Your task to perform on an android device: Search for vegetarian restaurants on Maps Image 0: 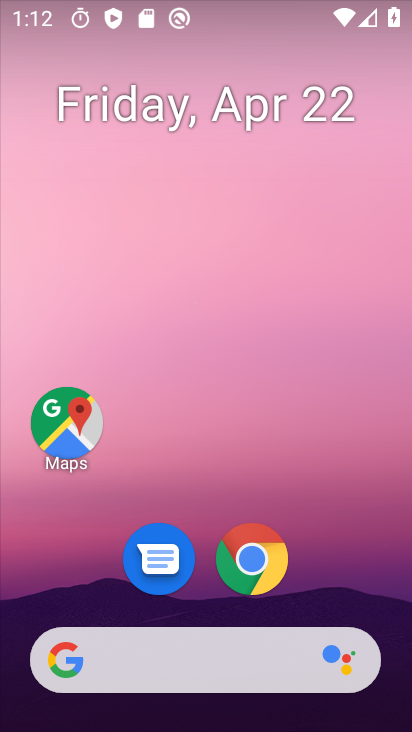
Step 0: drag from (363, 587) to (355, 330)
Your task to perform on an android device: Search for vegetarian restaurants on Maps Image 1: 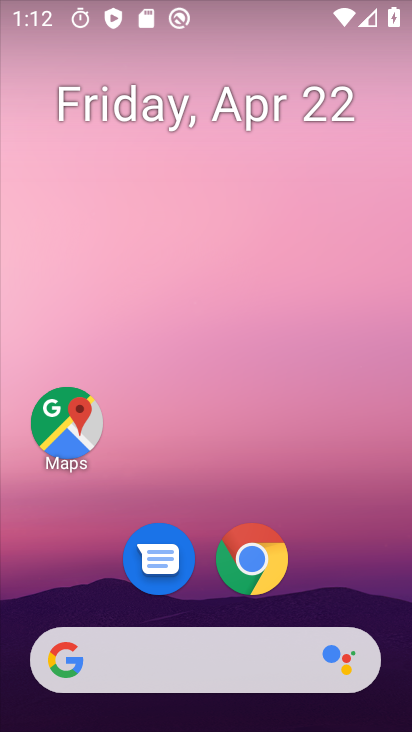
Step 1: drag from (350, 576) to (359, 114)
Your task to perform on an android device: Search for vegetarian restaurants on Maps Image 2: 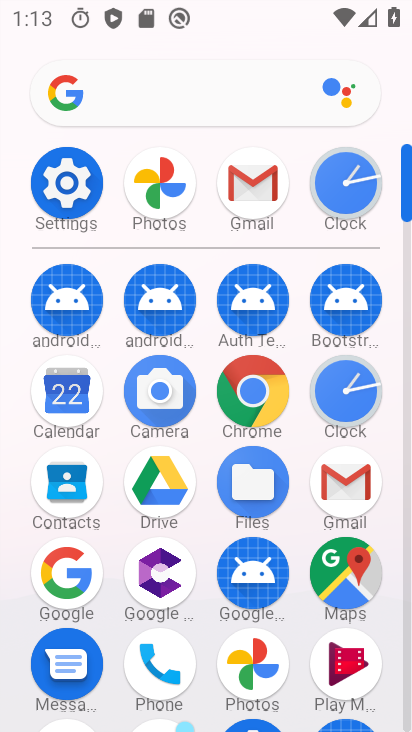
Step 2: click (353, 582)
Your task to perform on an android device: Search for vegetarian restaurants on Maps Image 3: 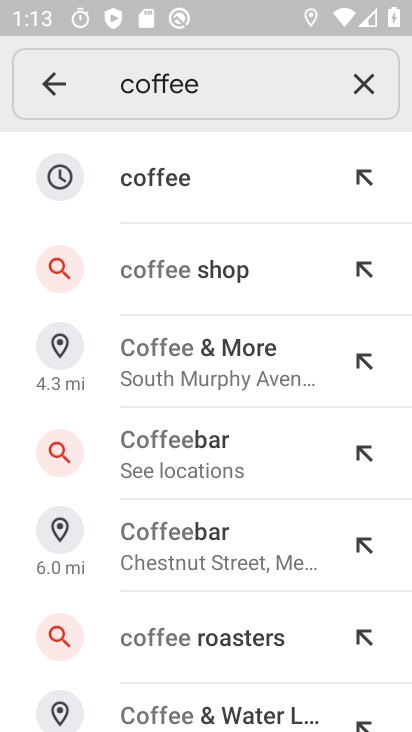
Step 3: click (362, 77)
Your task to perform on an android device: Search for vegetarian restaurants on Maps Image 4: 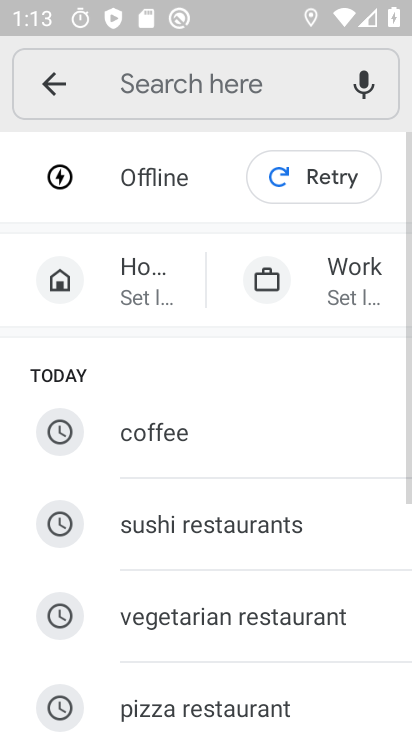
Step 4: click (203, 86)
Your task to perform on an android device: Search for vegetarian restaurants on Maps Image 5: 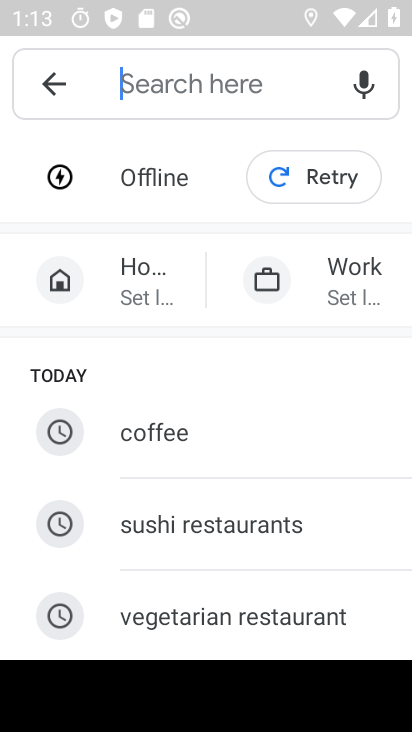
Step 5: type "vegetrain restaurants"
Your task to perform on an android device: Search for vegetarian restaurants on Maps Image 6: 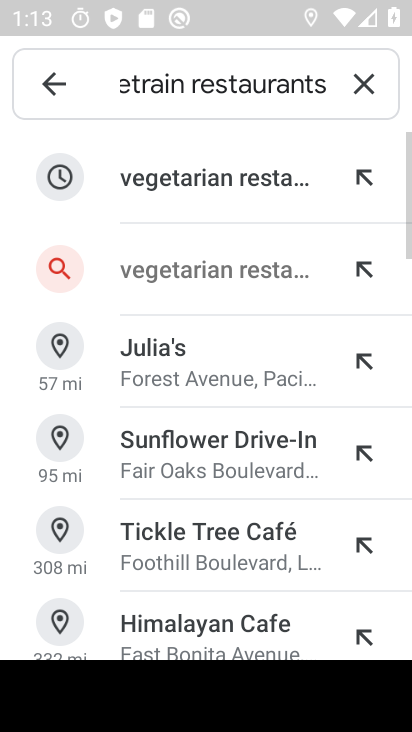
Step 6: click (233, 173)
Your task to perform on an android device: Search for vegetarian restaurants on Maps Image 7: 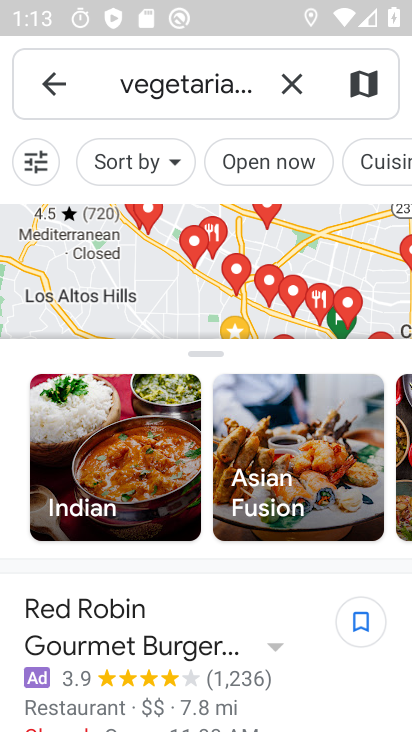
Step 7: task complete